Your task to perform on an android device: Open the Play Movies app and select the watchlist tab. Image 0: 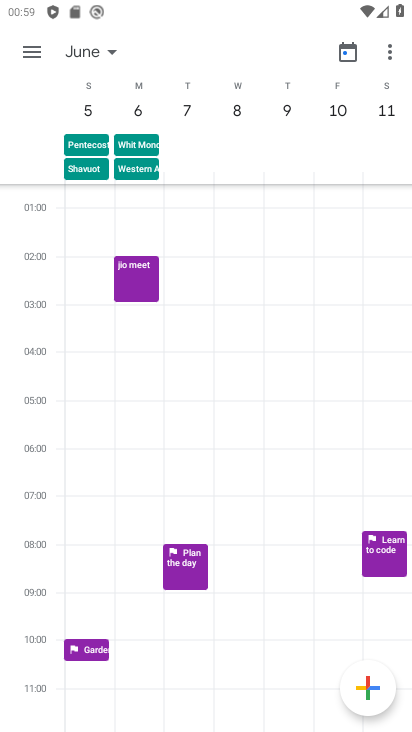
Step 0: press home button
Your task to perform on an android device: Open the Play Movies app and select the watchlist tab. Image 1: 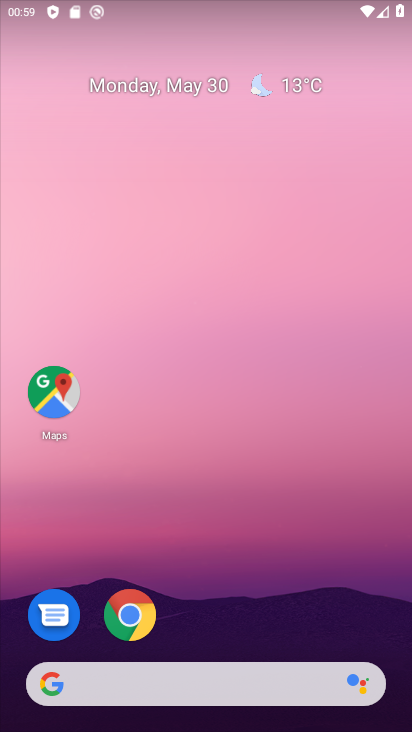
Step 1: drag from (234, 651) to (231, 86)
Your task to perform on an android device: Open the Play Movies app and select the watchlist tab. Image 2: 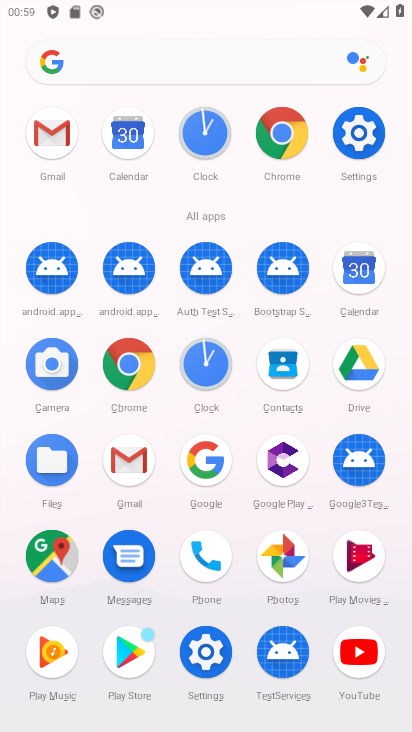
Step 2: click (360, 559)
Your task to perform on an android device: Open the Play Movies app and select the watchlist tab. Image 3: 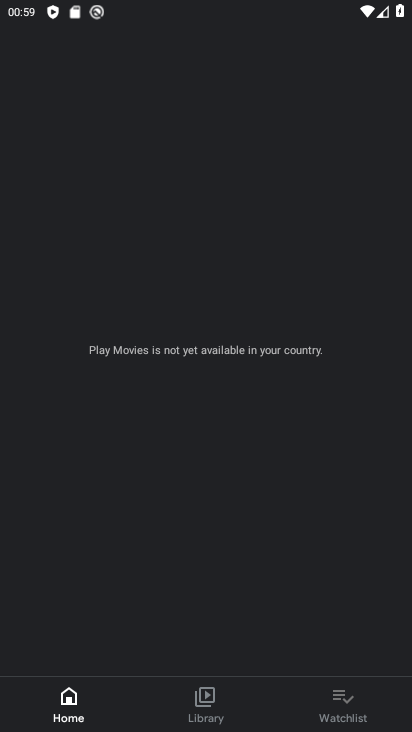
Step 3: click (334, 699)
Your task to perform on an android device: Open the Play Movies app and select the watchlist tab. Image 4: 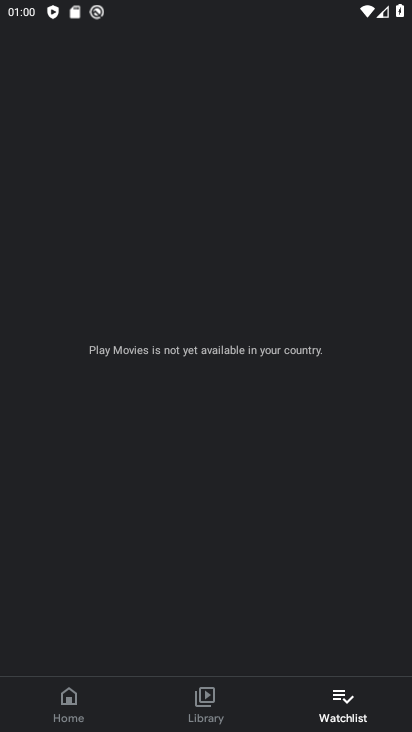
Step 4: task complete